Your task to perform on an android device: turn off smart reply in the gmail app Image 0: 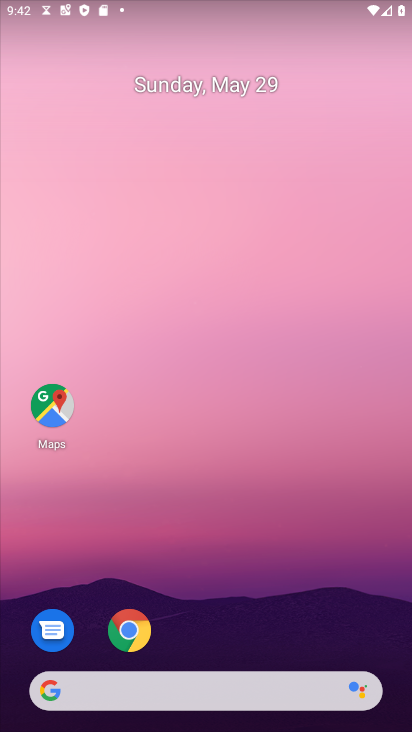
Step 0: drag from (218, 602) to (292, 24)
Your task to perform on an android device: turn off smart reply in the gmail app Image 1: 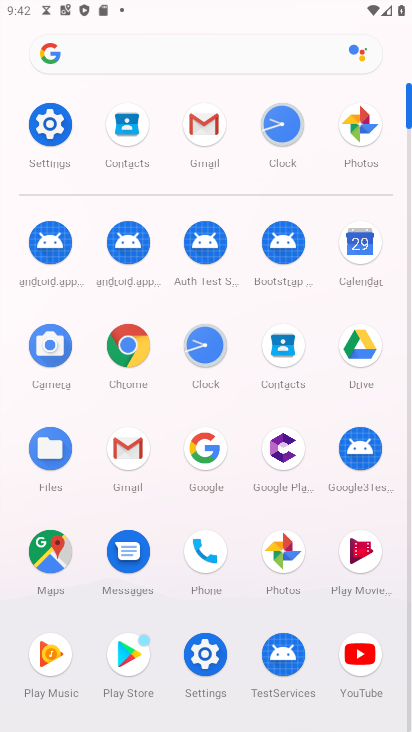
Step 1: click (210, 135)
Your task to perform on an android device: turn off smart reply in the gmail app Image 2: 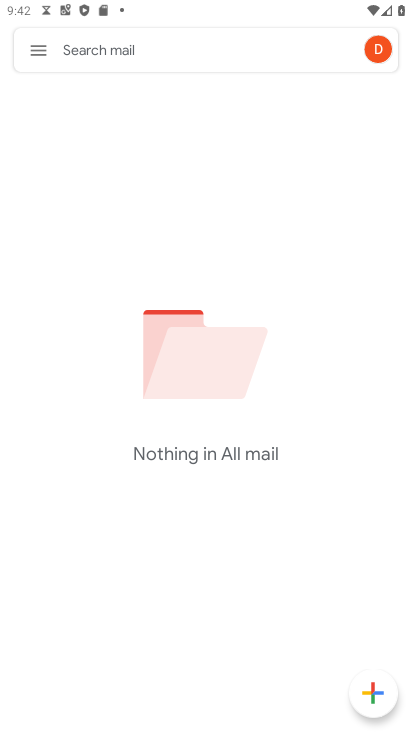
Step 2: click (43, 50)
Your task to perform on an android device: turn off smart reply in the gmail app Image 3: 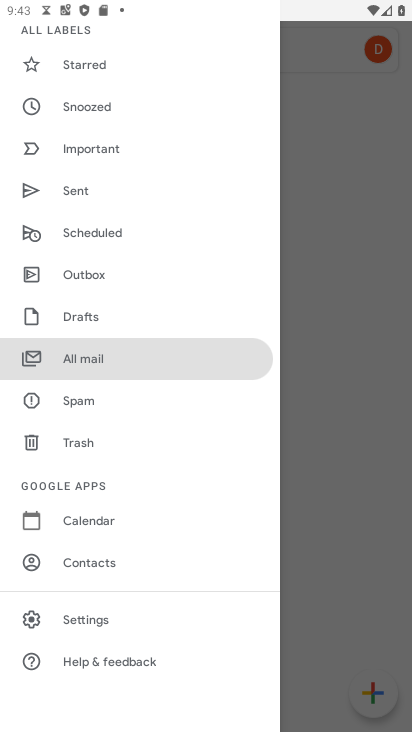
Step 3: click (80, 625)
Your task to perform on an android device: turn off smart reply in the gmail app Image 4: 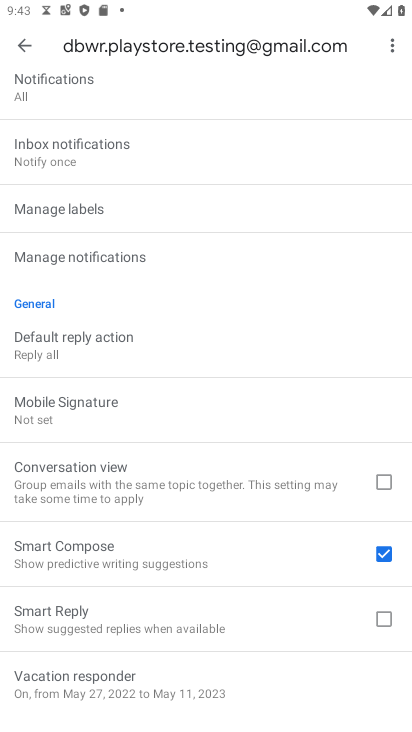
Step 4: task complete